Your task to perform on an android device: Go to Amazon Image 0: 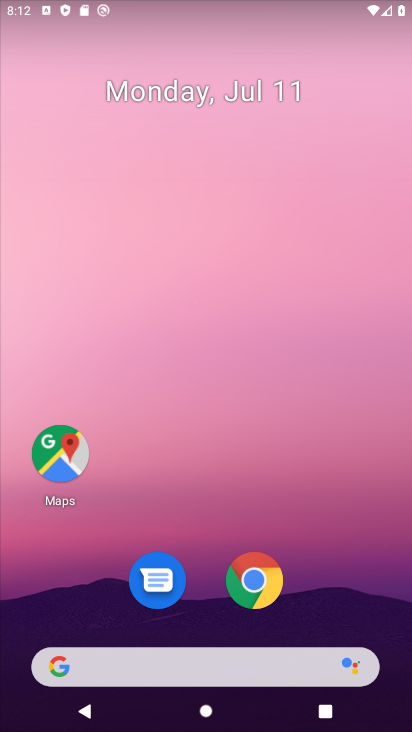
Step 0: click (332, 603)
Your task to perform on an android device: Go to Amazon Image 1: 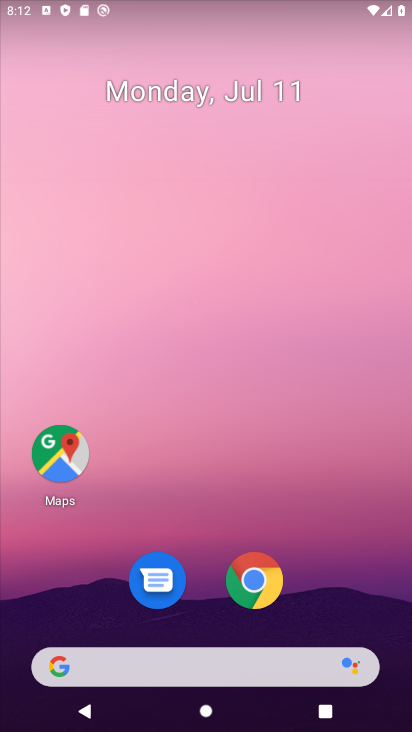
Step 1: click (261, 578)
Your task to perform on an android device: Go to Amazon Image 2: 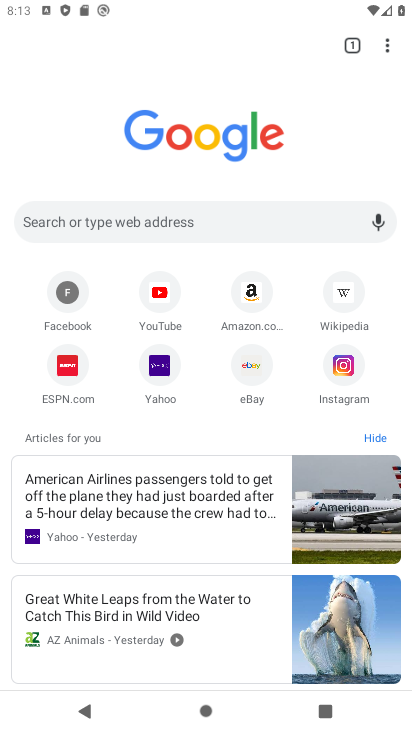
Step 2: click (259, 292)
Your task to perform on an android device: Go to Amazon Image 3: 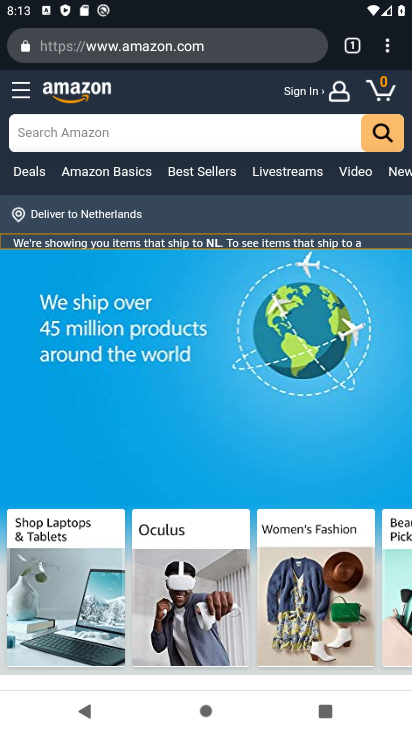
Step 3: task complete